Your task to perform on an android device: Open calendar and show me the first week of next month Image 0: 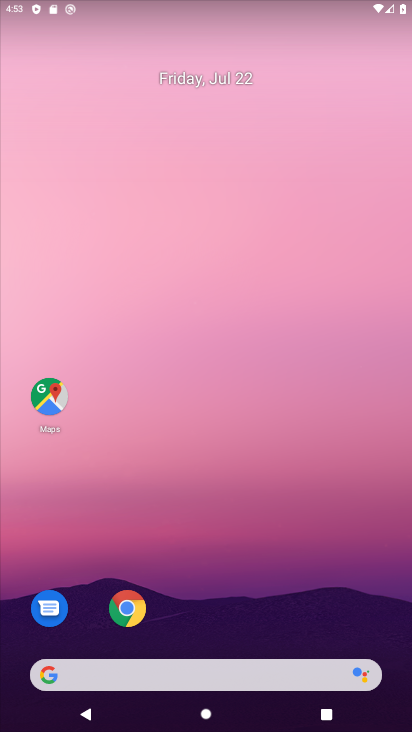
Step 0: click (196, 81)
Your task to perform on an android device: Open calendar and show me the first week of next month Image 1: 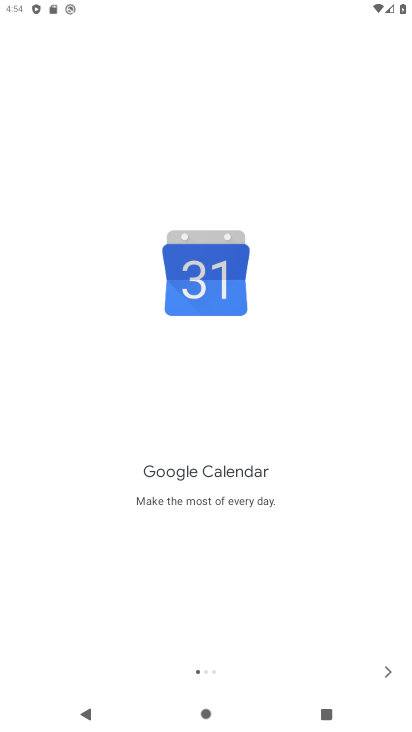
Step 1: click (390, 667)
Your task to perform on an android device: Open calendar and show me the first week of next month Image 2: 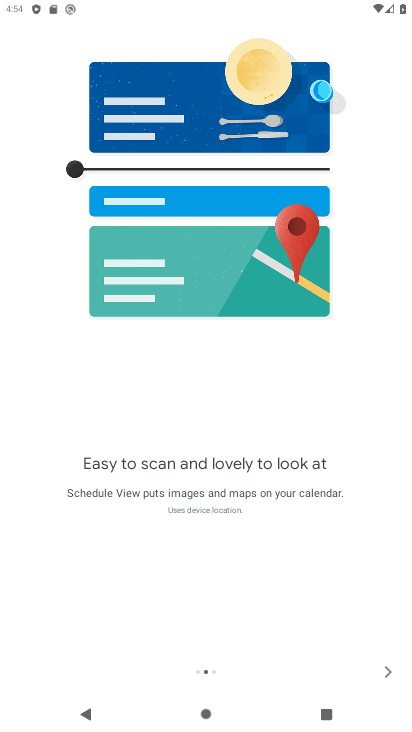
Step 2: click (390, 667)
Your task to perform on an android device: Open calendar and show me the first week of next month Image 3: 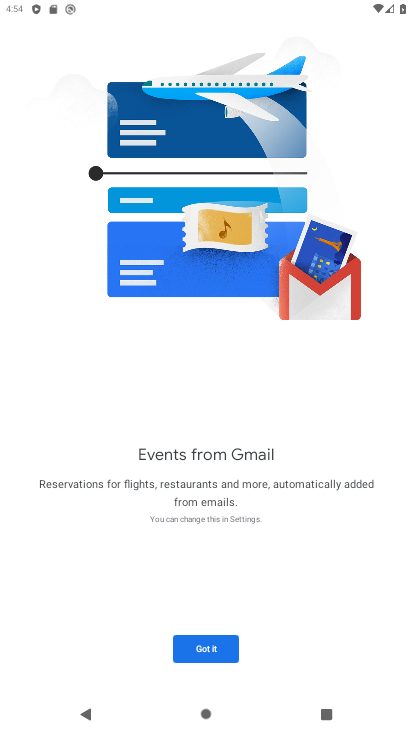
Step 3: click (216, 649)
Your task to perform on an android device: Open calendar and show me the first week of next month Image 4: 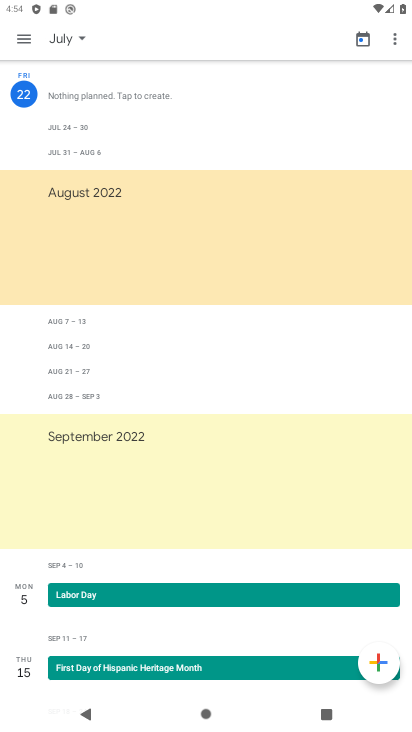
Step 4: click (86, 29)
Your task to perform on an android device: Open calendar and show me the first week of next month Image 5: 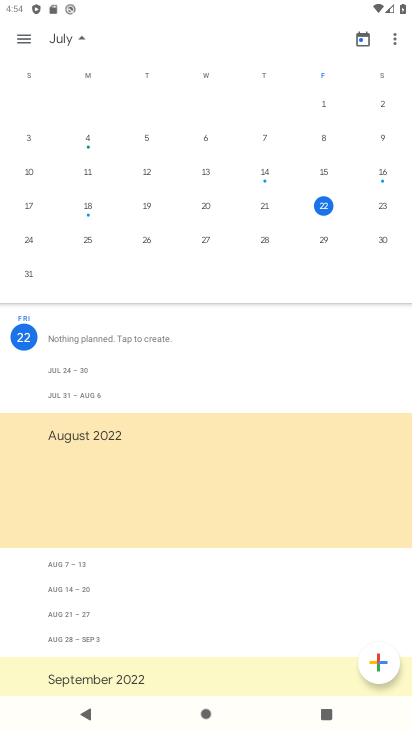
Step 5: task complete